Your task to perform on an android device: Open battery settings Image 0: 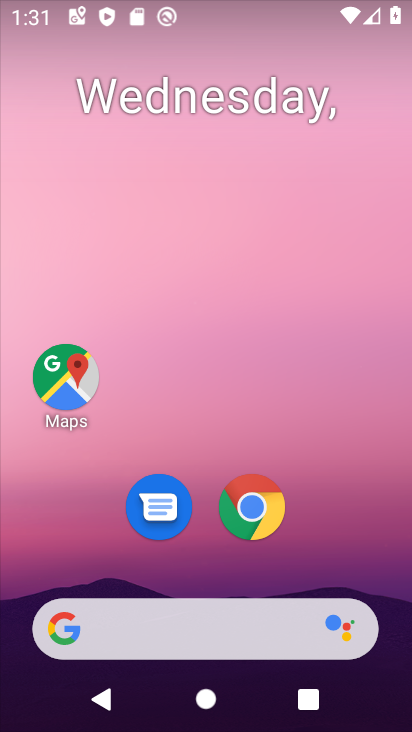
Step 0: press home button
Your task to perform on an android device: Open battery settings Image 1: 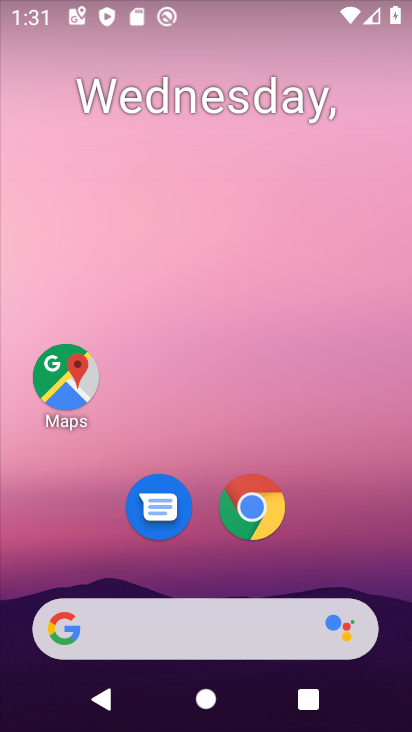
Step 1: drag from (387, 551) to (364, 154)
Your task to perform on an android device: Open battery settings Image 2: 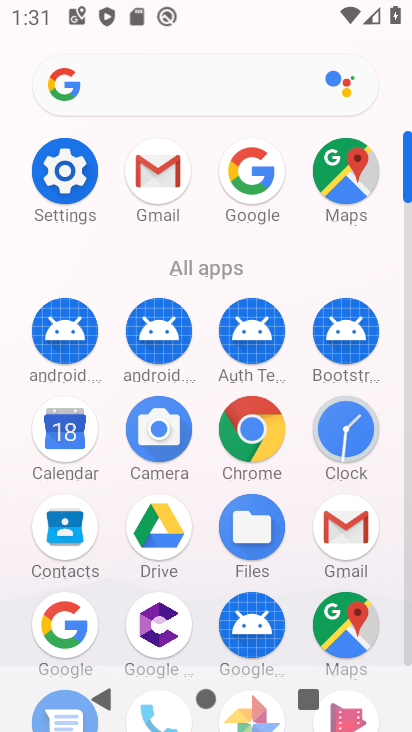
Step 2: click (66, 187)
Your task to perform on an android device: Open battery settings Image 3: 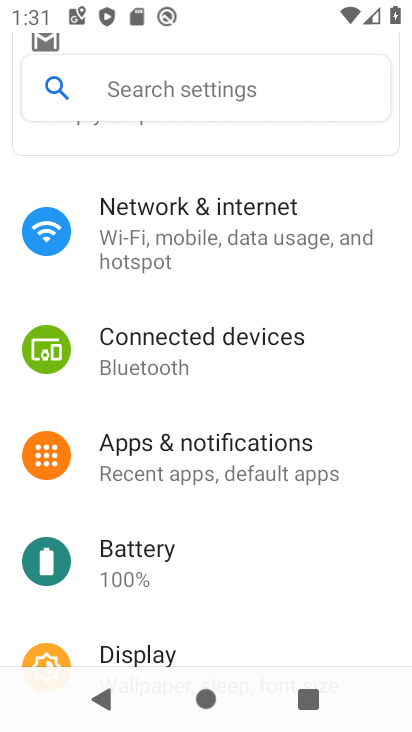
Step 3: click (178, 553)
Your task to perform on an android device: Open battery settings Image 4: 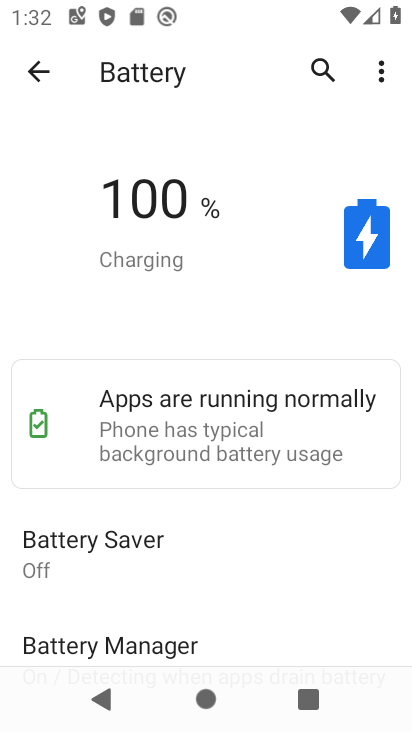
Step 4: task complete